Your task to perform on an android device: toggle location history Image 0: 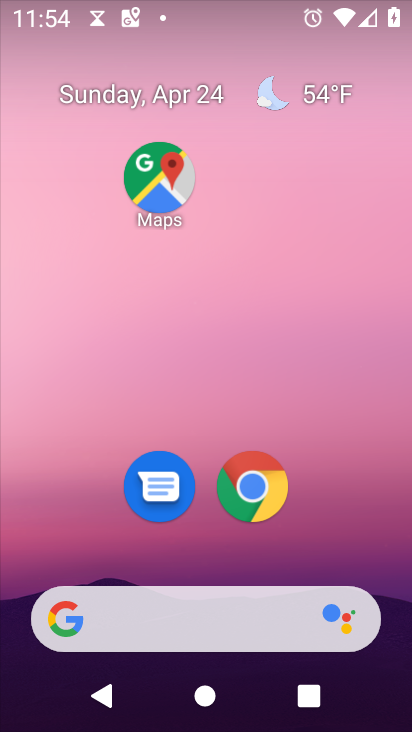
Step 0: drag from (255, 548) to (299, 189)
Your task to perform on an android device: toggle location history Image 1: 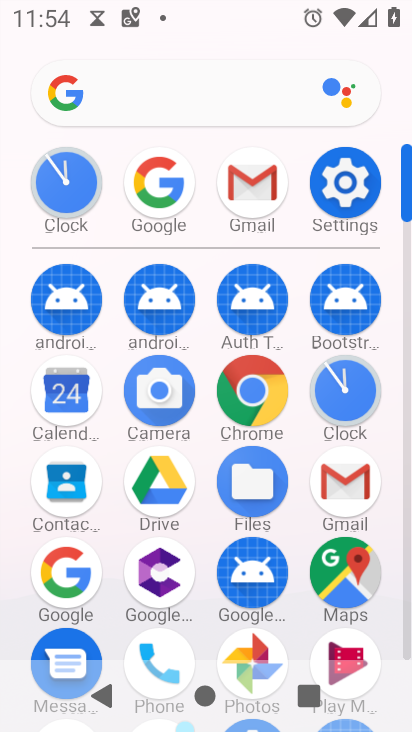
Step 1: click (346, 203)
Your task to perform on an android device: toggle location history Image 2: 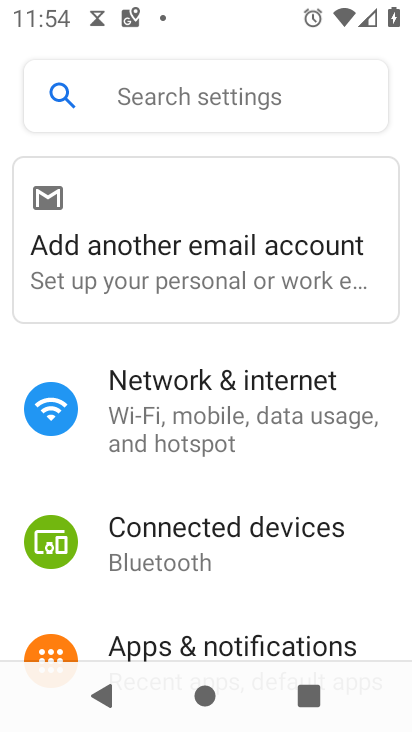
Step 2: drag from (244, 593) to (296, 259)
Your task to perform on an android device: toggle location history Image 3: 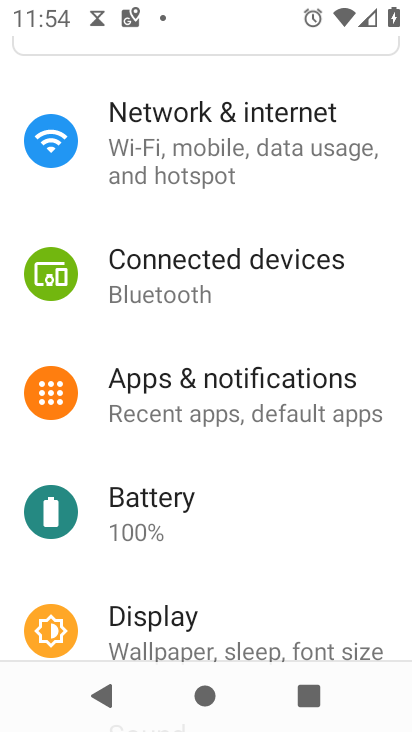
Step 3: drag from (265, 548) to (319, 185)
Your task to perform on an android device: toggle location history Image 4: 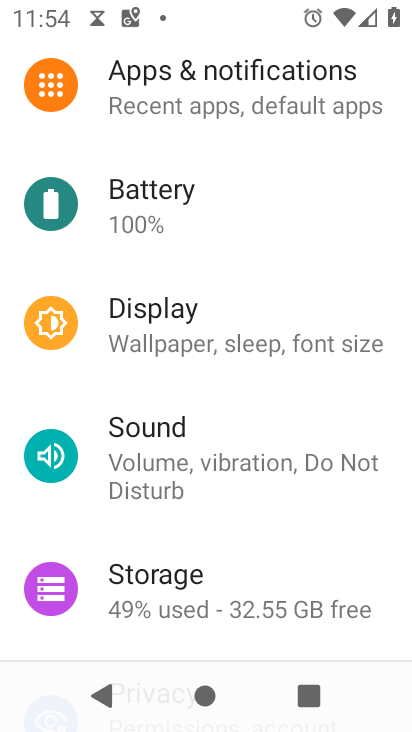
Step 4: drag from (274, 534) to (304, 192)
Your task to perform on an android device: toggle location history Image 5: 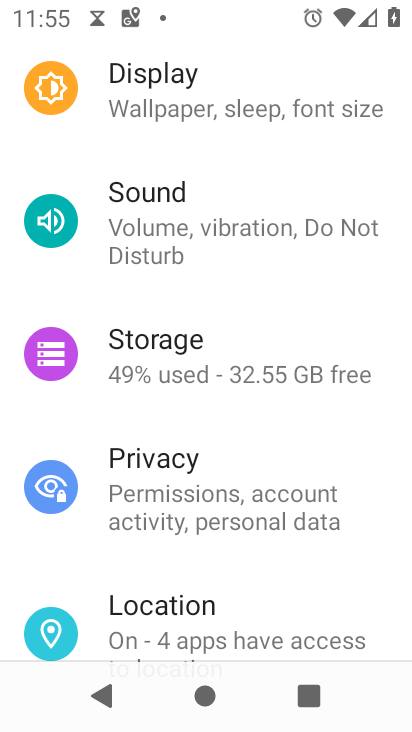
Step 5: drag from (233, 551) to (260, 336)
Your task to perform on an android device: toggle location history Image 6: 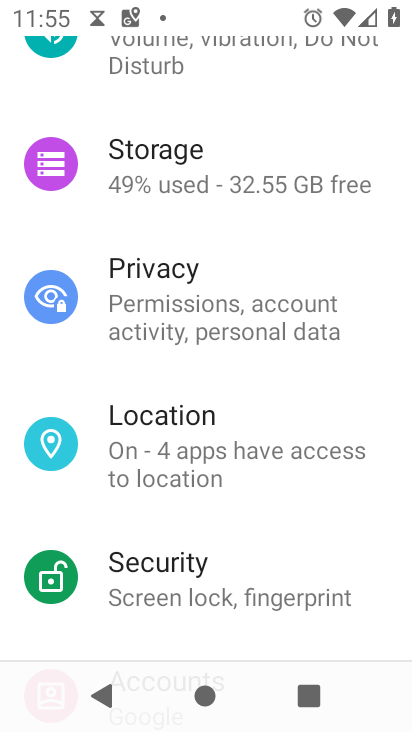
Step 6: click (224, 444)
Your task to perform on an android device: toggle location history Image 7: 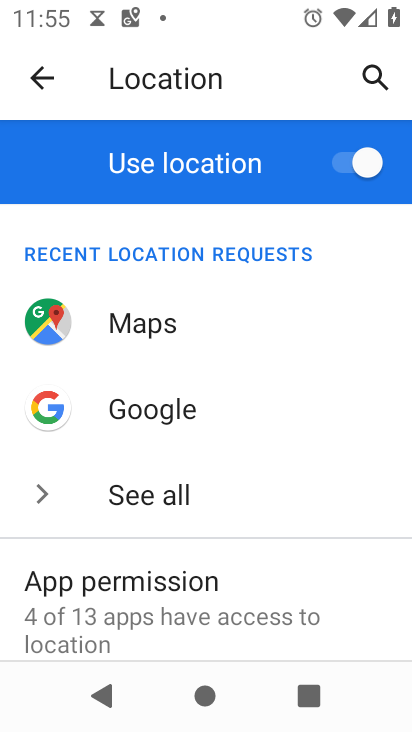
Step 7: drag from (222, 598) to (293, 260)
Your task to perform on an android device: toggle location history Image 8: 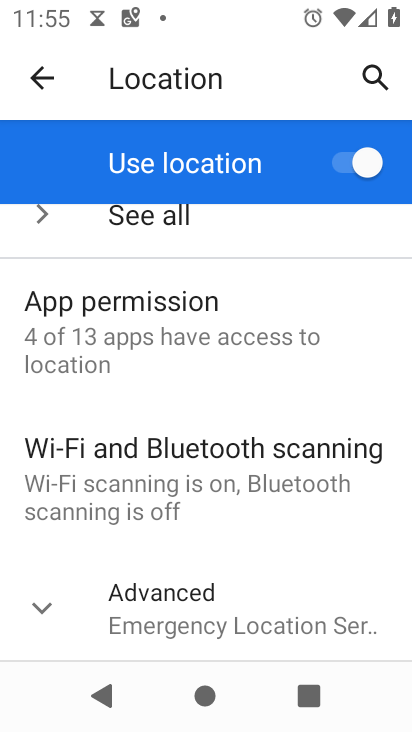
Step 8: click (204, 614)
Your task to perform on an android device: toggle location history Image 9: 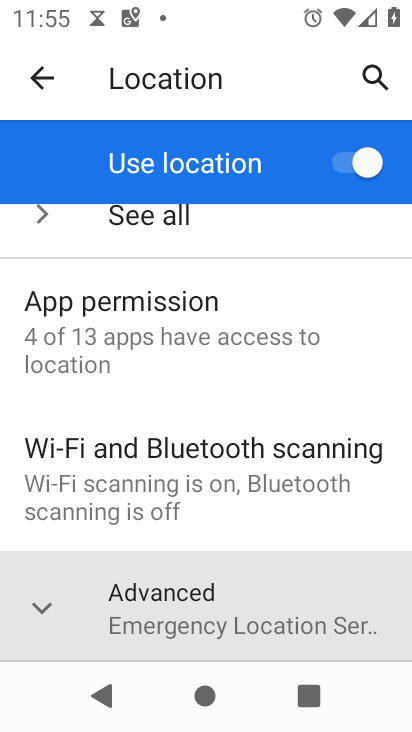
Step 9: drag from (216, 559) to (282, 248)
Your task to perform on an android device: toggle location history Image 10: 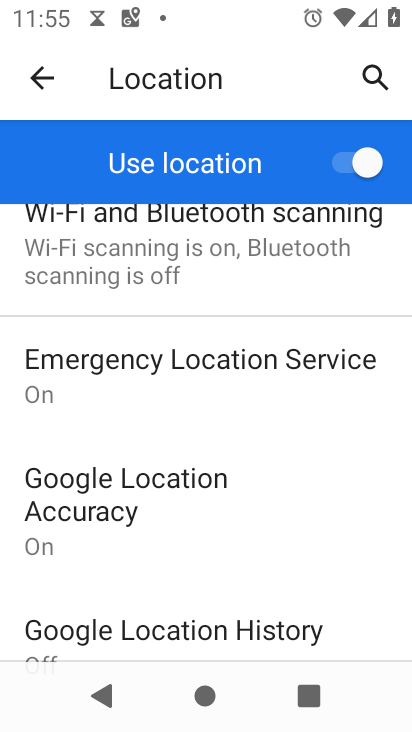
Step 10: drag from (221, 616) to (263, 403)
Your task to perform on an android device: toggle location history Image 11: 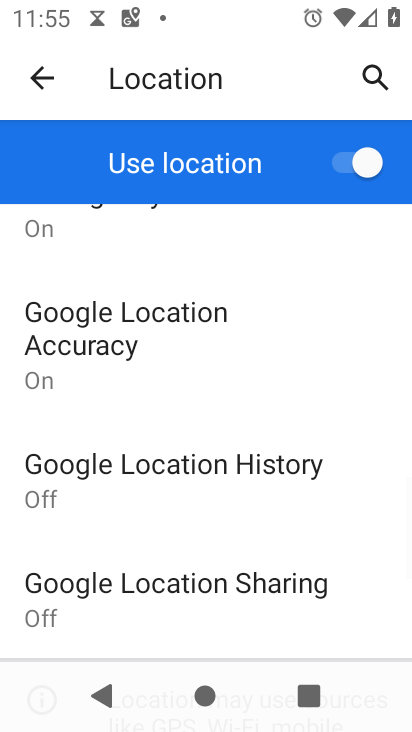
Step 11: click (255, 496)
Your task to perform on an android device: toggle location history Image 12: 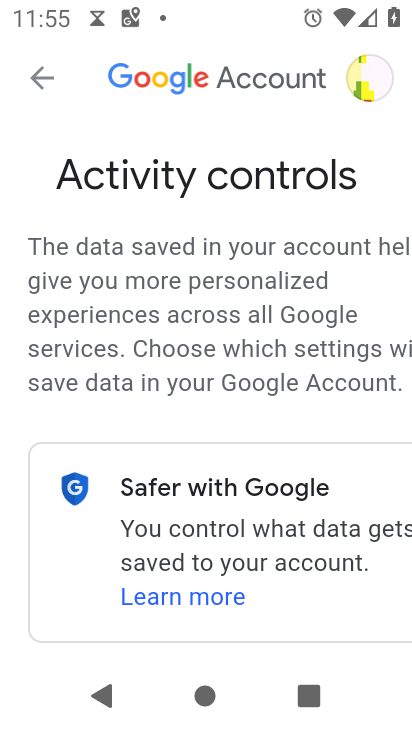
Step 12: drag from (288, 614) to (249, 288)
Your task to perform on an android device: toggle location history Image 13: 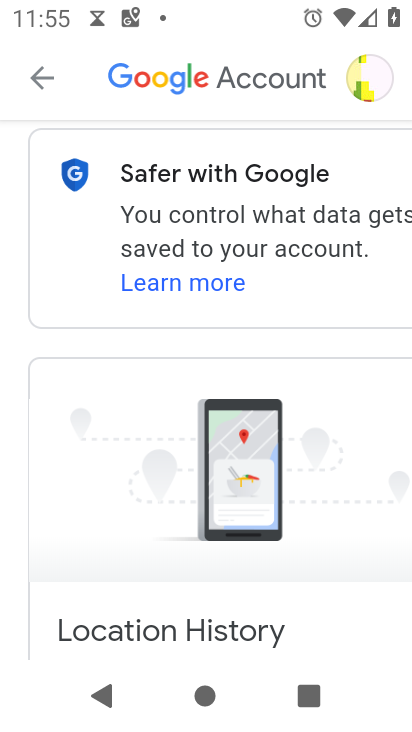
Step 13: drag from (280, 525) to (263, 238)
Your task to perform on an android device: toggle location history Image 14: 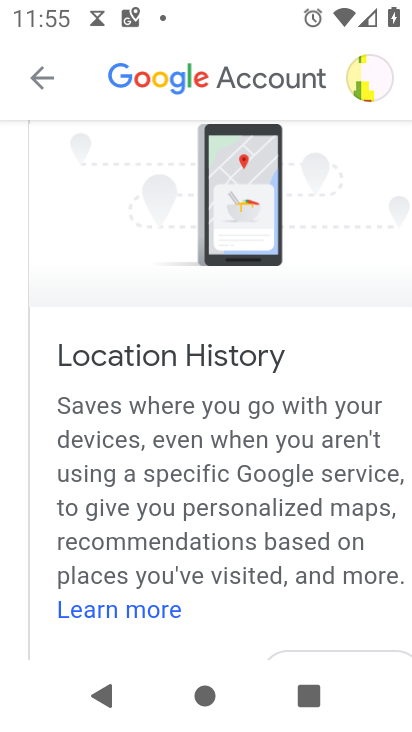
Step 14: drag from (299, 526) to (276, 216)
Your task to perform on an android device: toggle location history Image 15: 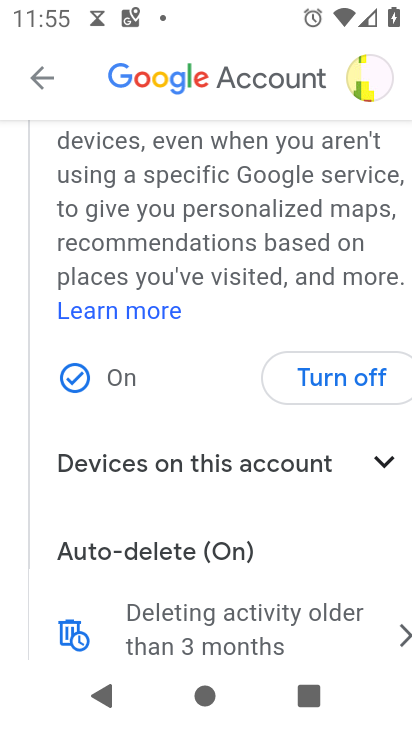
Step 15: click (343, 374)
Your task to perform on an android device: toggle location history Image 16: 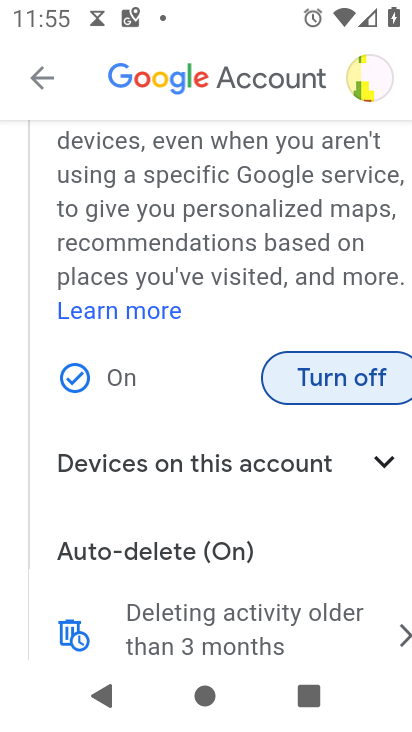
Step 16: click (351, 389)
Your task to perform on an android device: toggle location history Image 17: 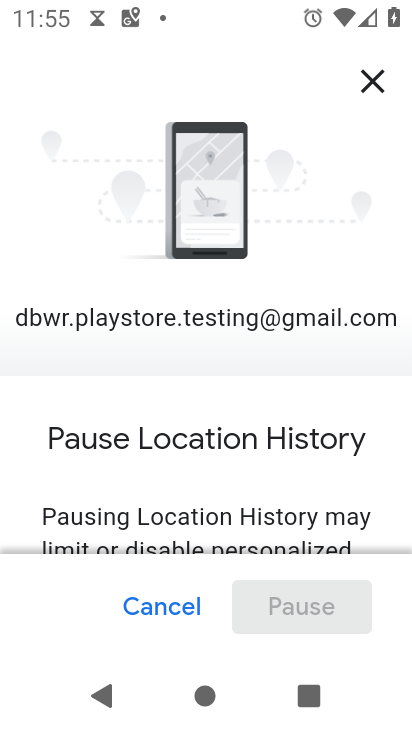
Step 17: drag from (299, 524) to (257, 128)
Your task to perform on an android device: toggle location history Image 18: 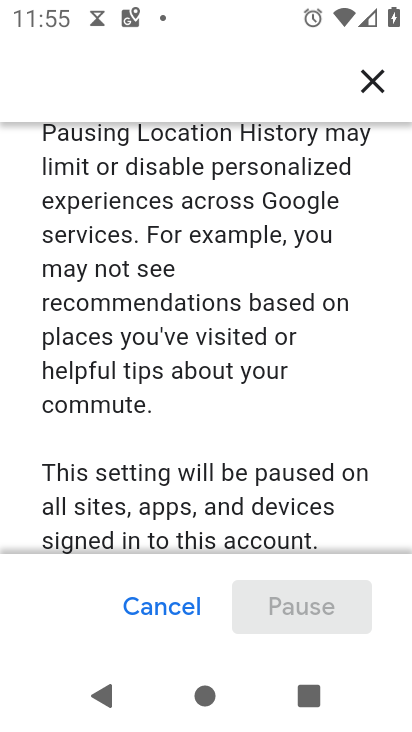
Step 18: drag from (271, 452) to (262, 71)
Your task to perform on an android device: toggle location history Image 19: 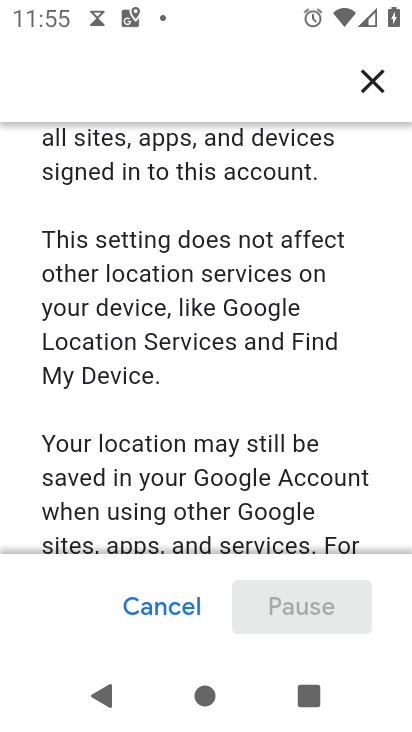
Step 19: drag from (256, 412) to (265, 46)
Your task to perform on an android device: toggle location history Image 20: 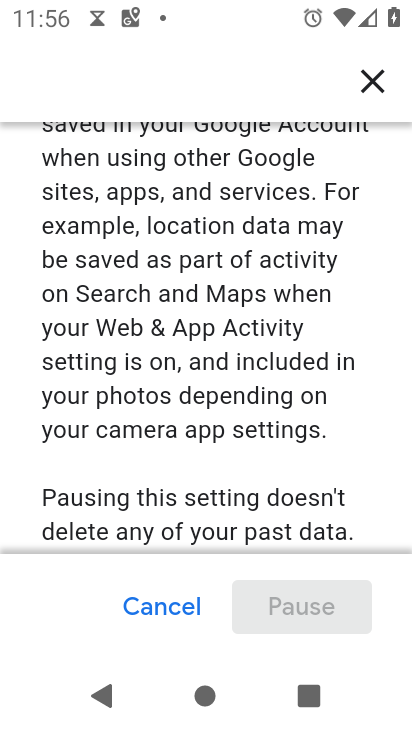
Step 20: drag from (301, 428) to (316, 98)
Your task to perform on an android device: toggle location history Image 21: 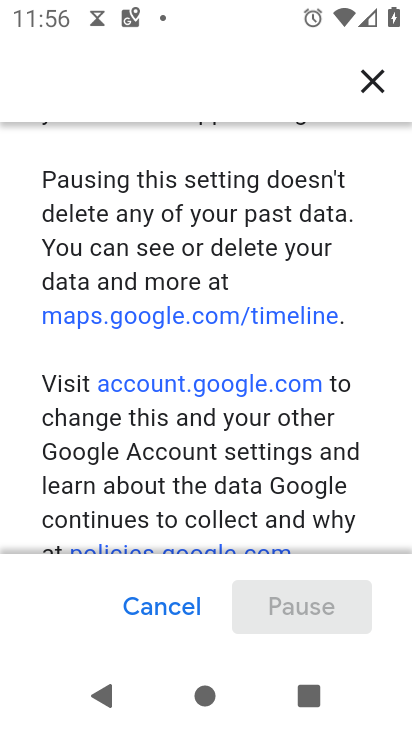
Step 21: drag from (312, 425) to (298, 73)
Your task to perform on an android device: toggle location history Image 22: 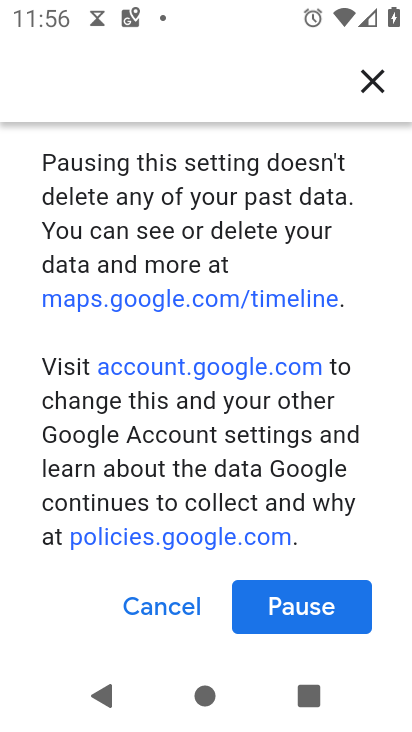
Step 22: click (283, 627)
Your task to perform on an android device: toggle location history Image 23: 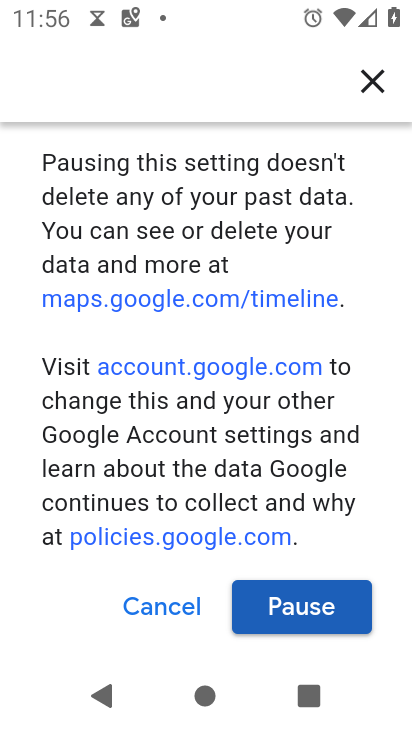
Step 23: click (323, 610)
Your task to perform on an android device: toggle location history Image 24: 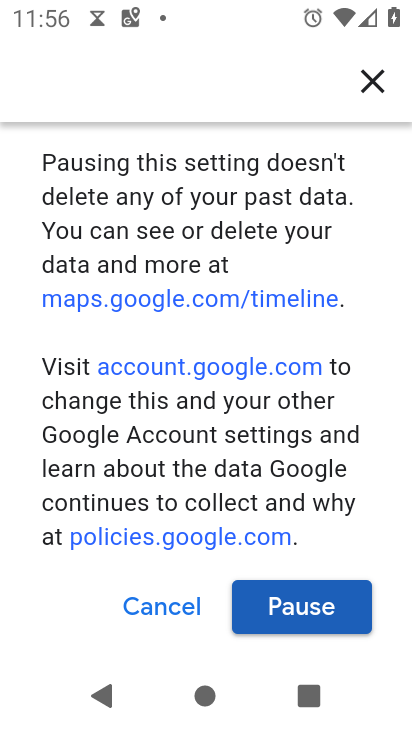
Step 24: click (366, 606)
Your task to perform on an android device: toggle location history Image 25: 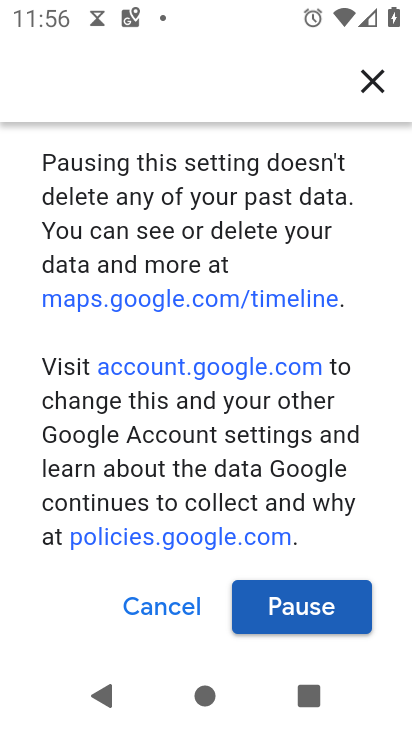
Step 25: click (307, 615)
Your task to perform on an android device: toggle location history Image 26: 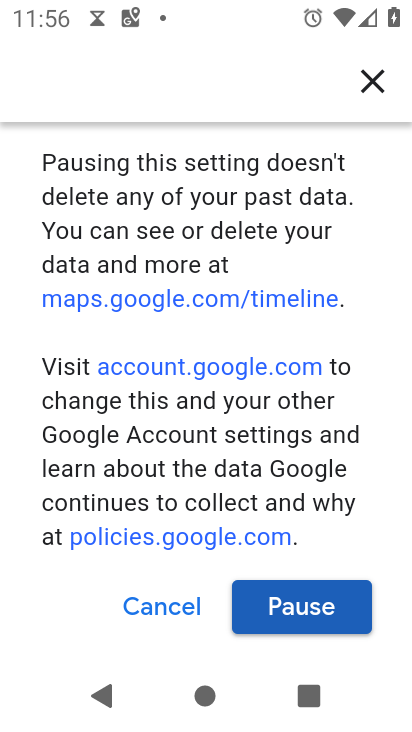
Step 26: click (307, 616)
Your task to perform on an android device: toggle location history Image 27: 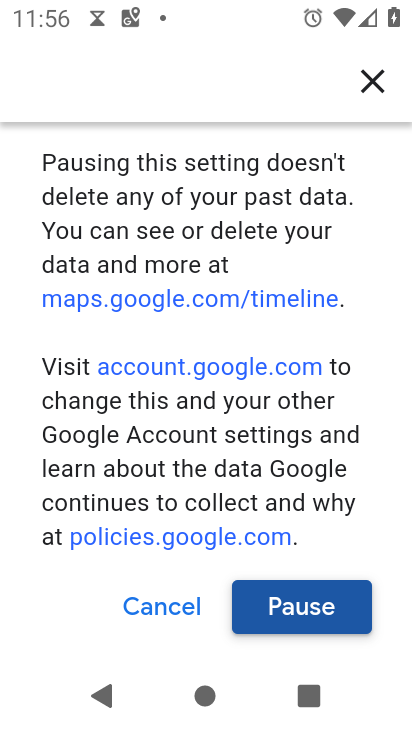
Step 27: task complete